Your task to perform on an android device: set the timer Image 0: 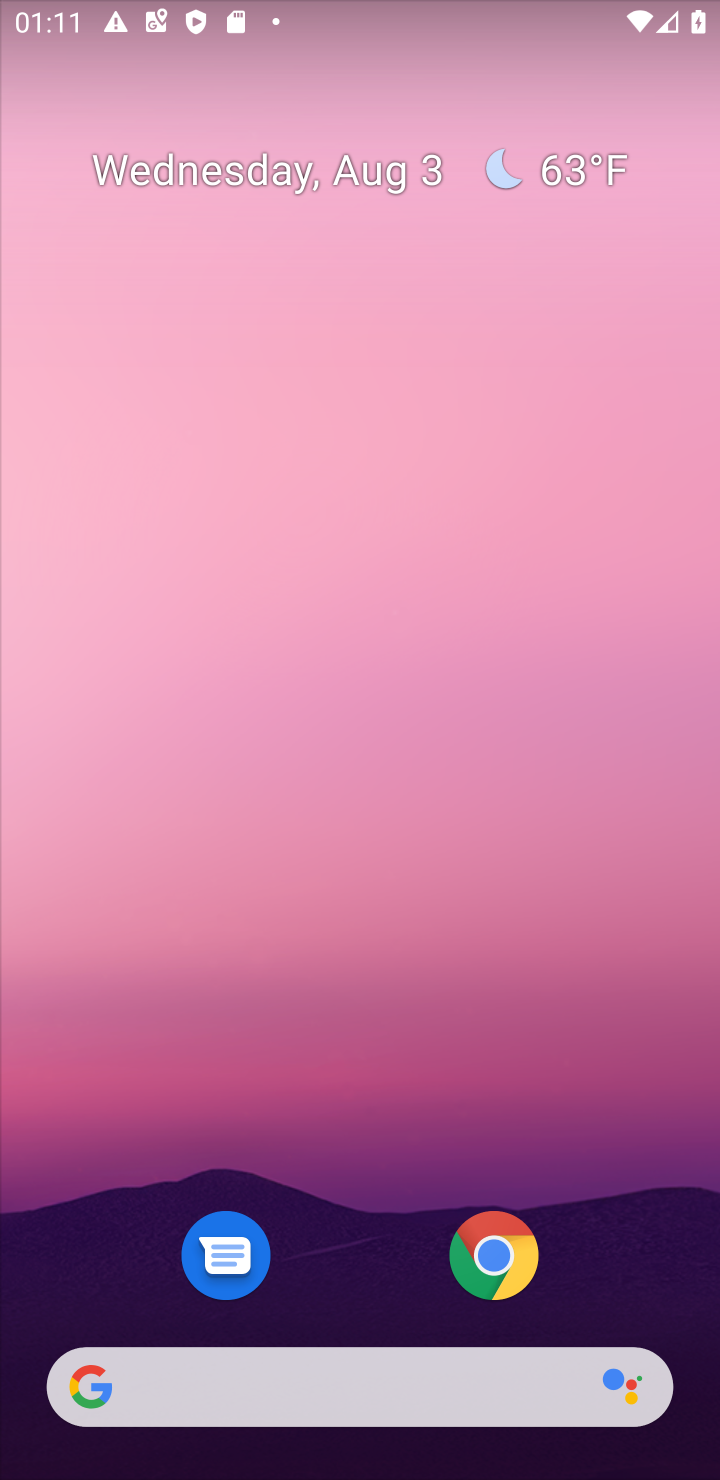
Step 0: drag from (686, 1261) to (360, 128)
Your task to perform on an android device: set the timer Image 1: 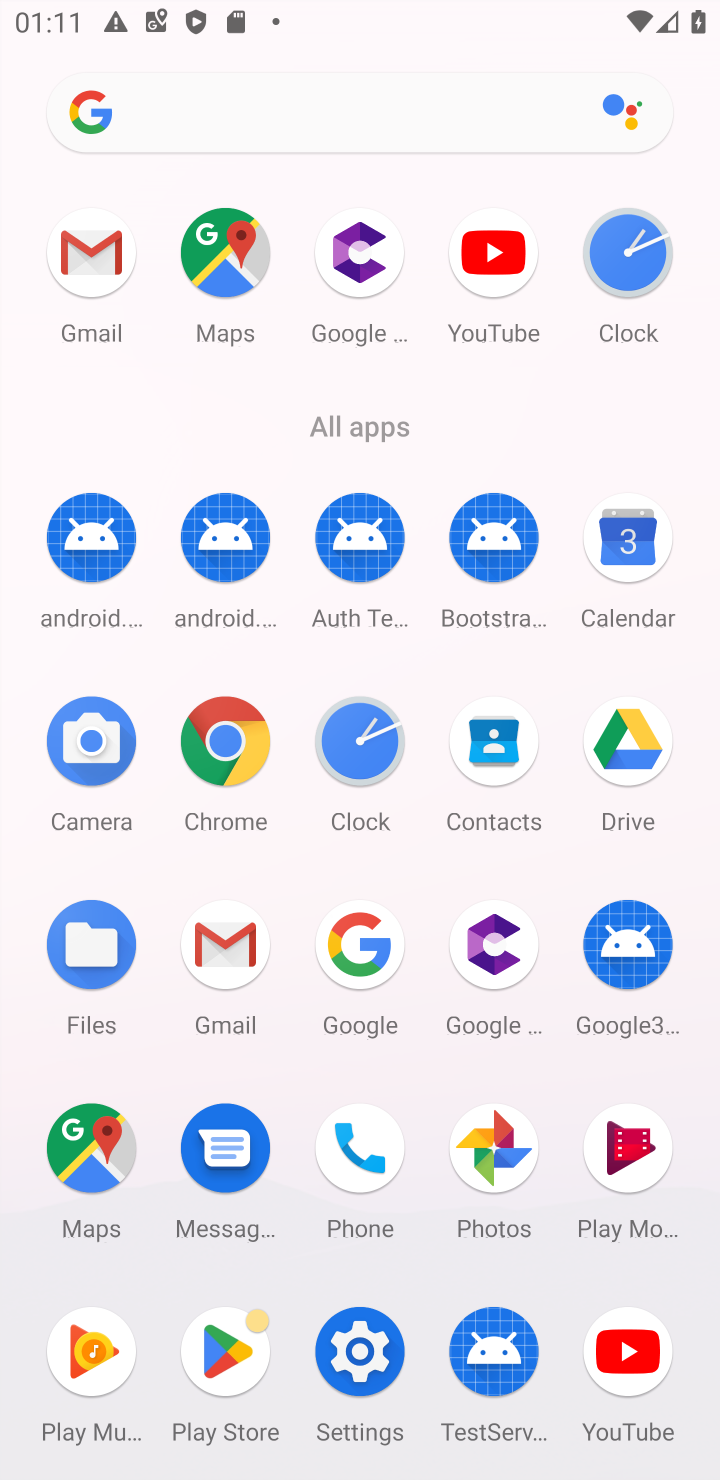
Step 1: click (653, 264)
Your task to perform on an android device: set the timer Image 2: 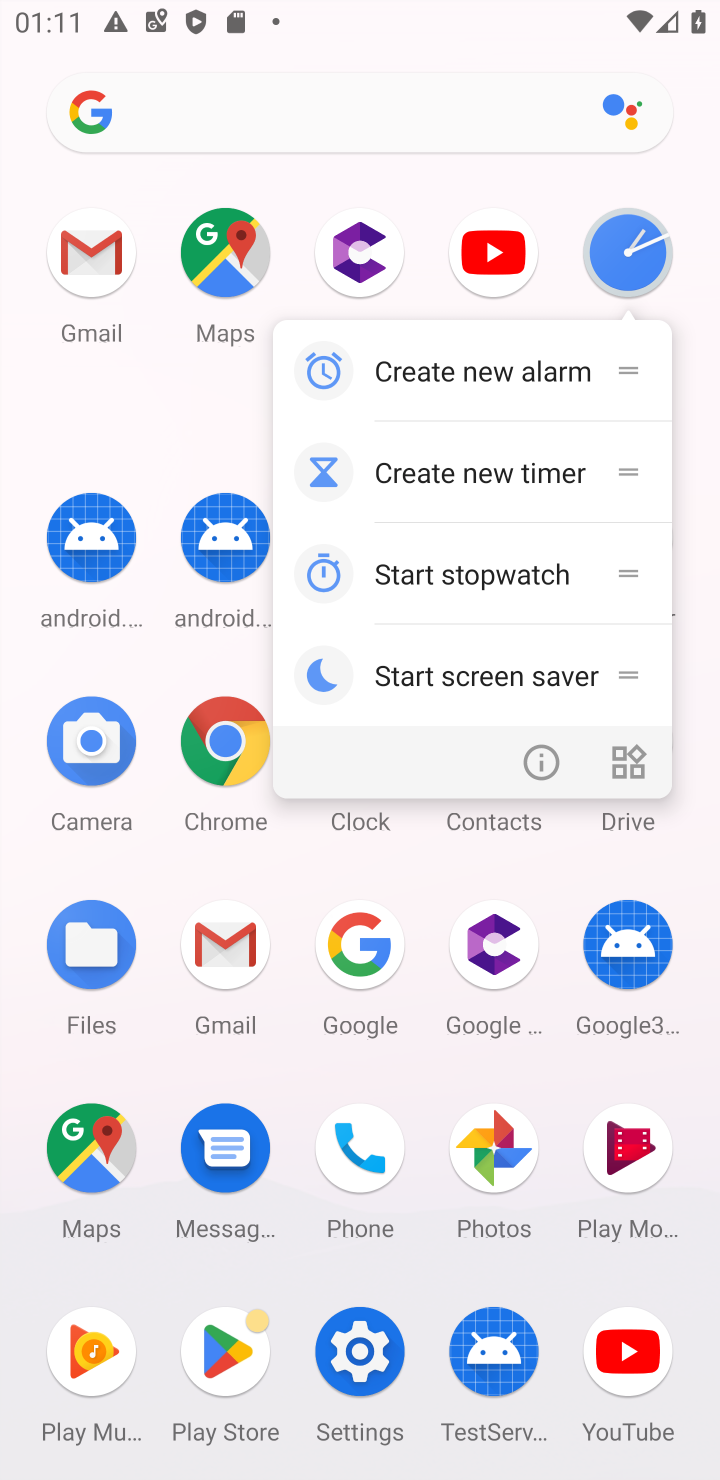
Step 2: click (653, 264)
Your task to perform on an android device: set the timer Image 3: 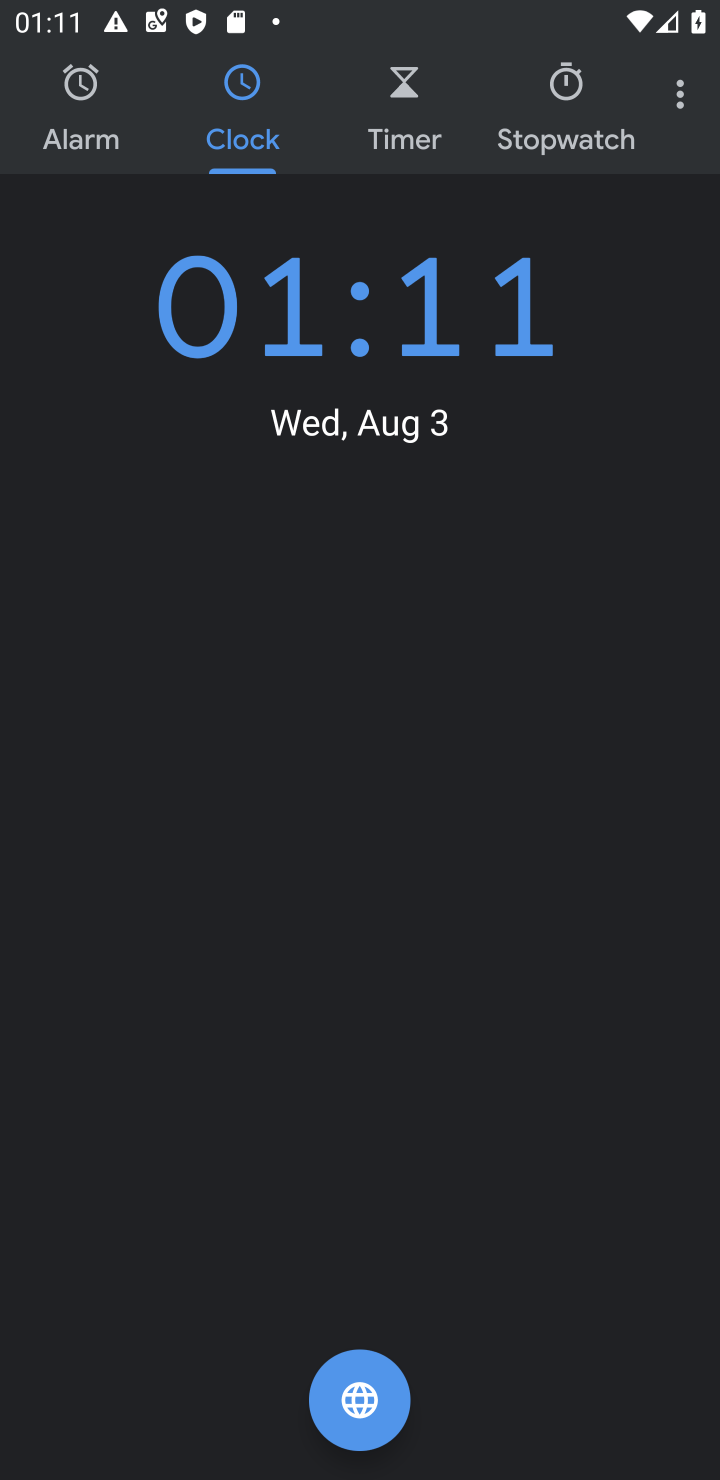
Step 3: click (389, 128)
Your task to perform on an android device: set the timer Image 4: 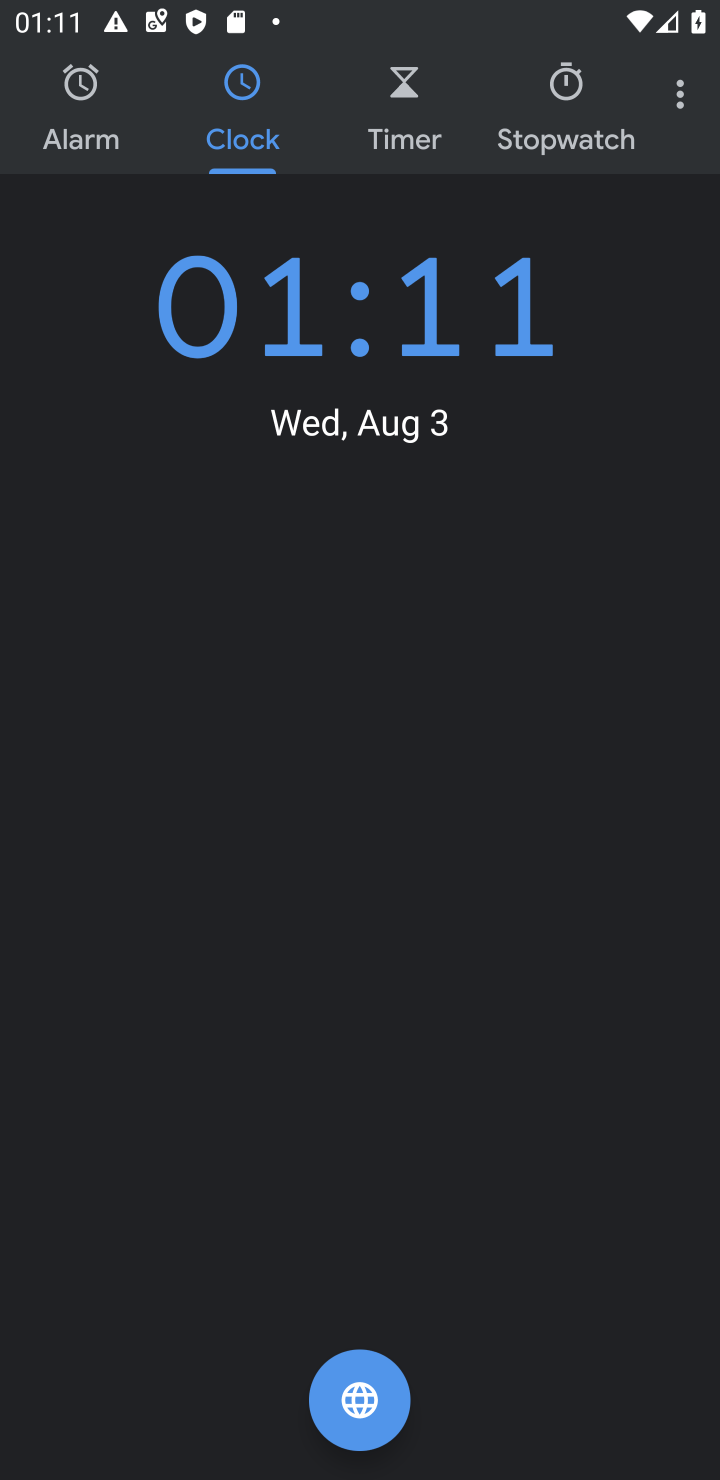
Step 4: click (392, 111)
Your task to perform on an android device: set the timer Image 5: 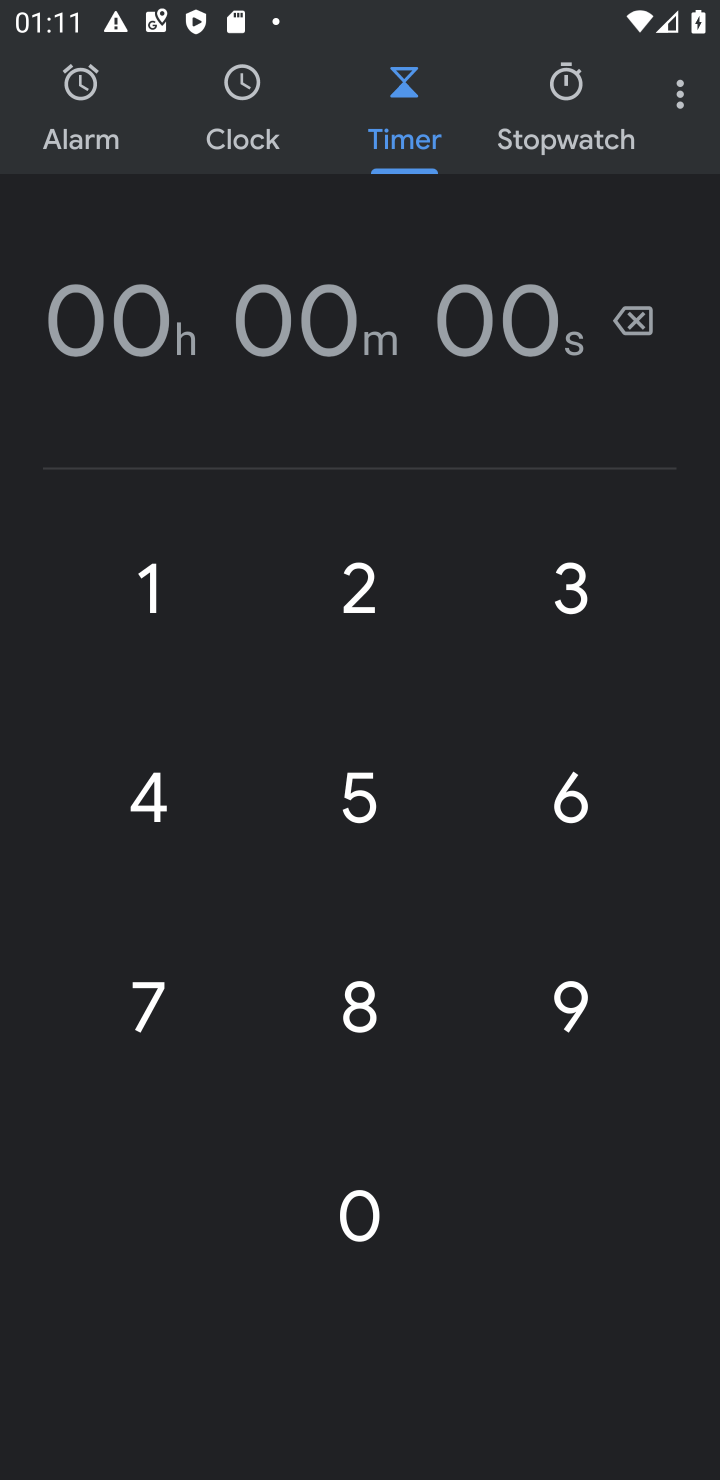
Step 5: click (392, 111)
Your task to perform on an android device: set the timer Image 6: 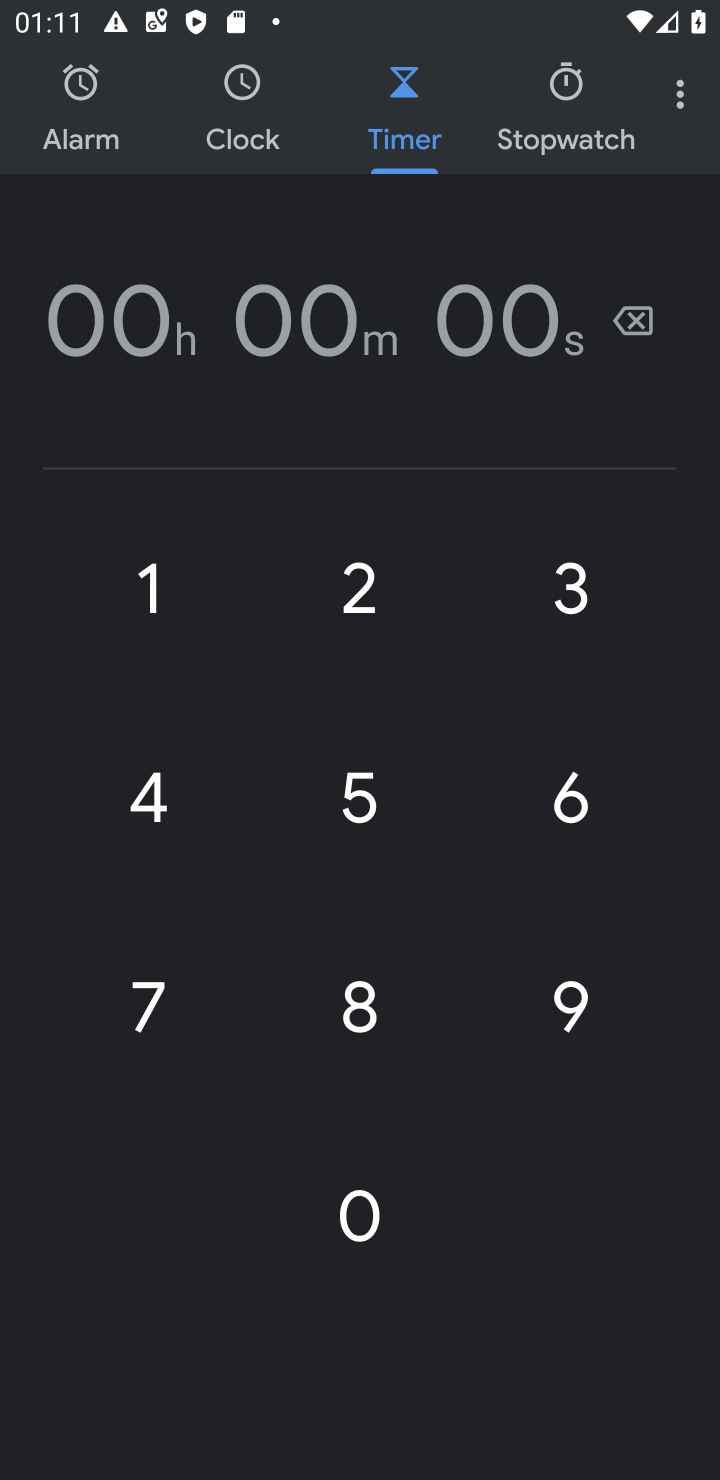
Step 6: type "189182"
Your task to perform on an android device: set the timer Image 7: 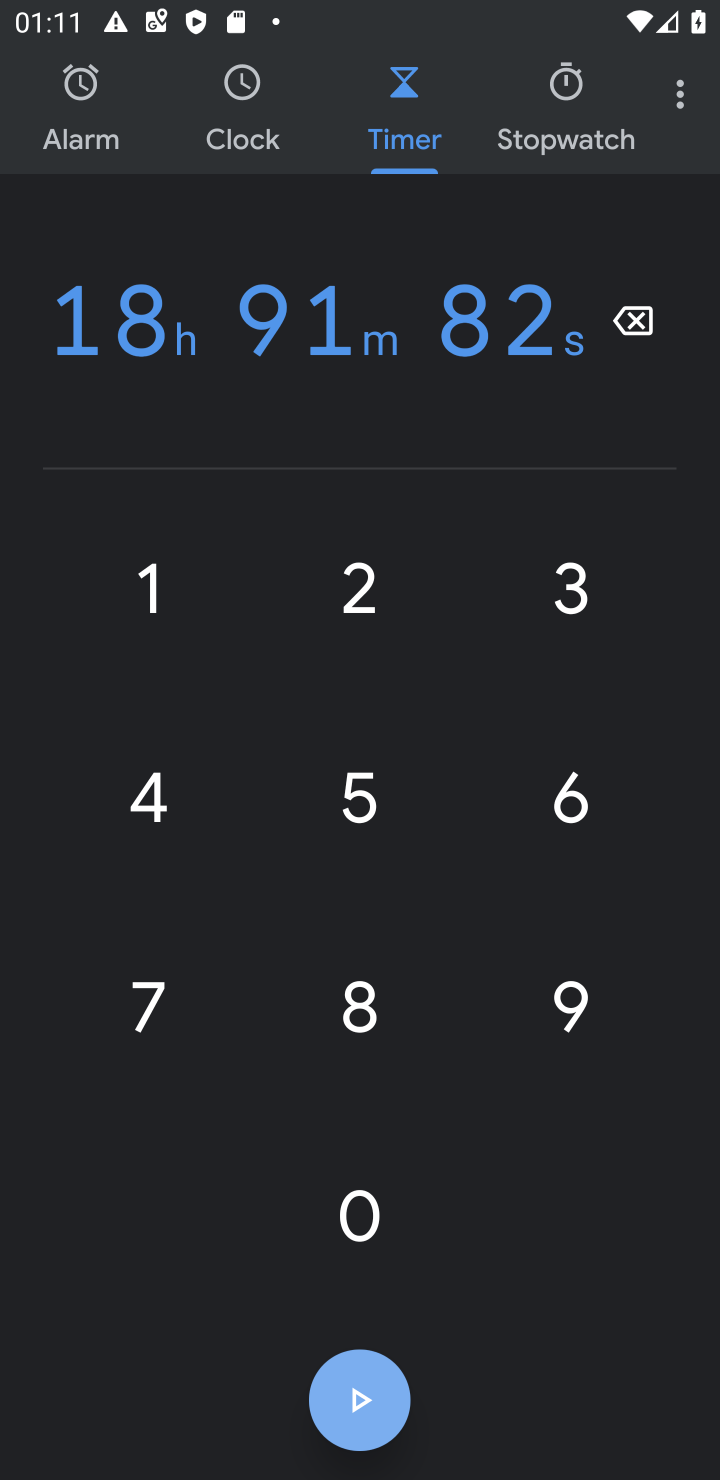
Step 7: click (399, 1398)
Your task to perform on an android device: set the timer Image 8: 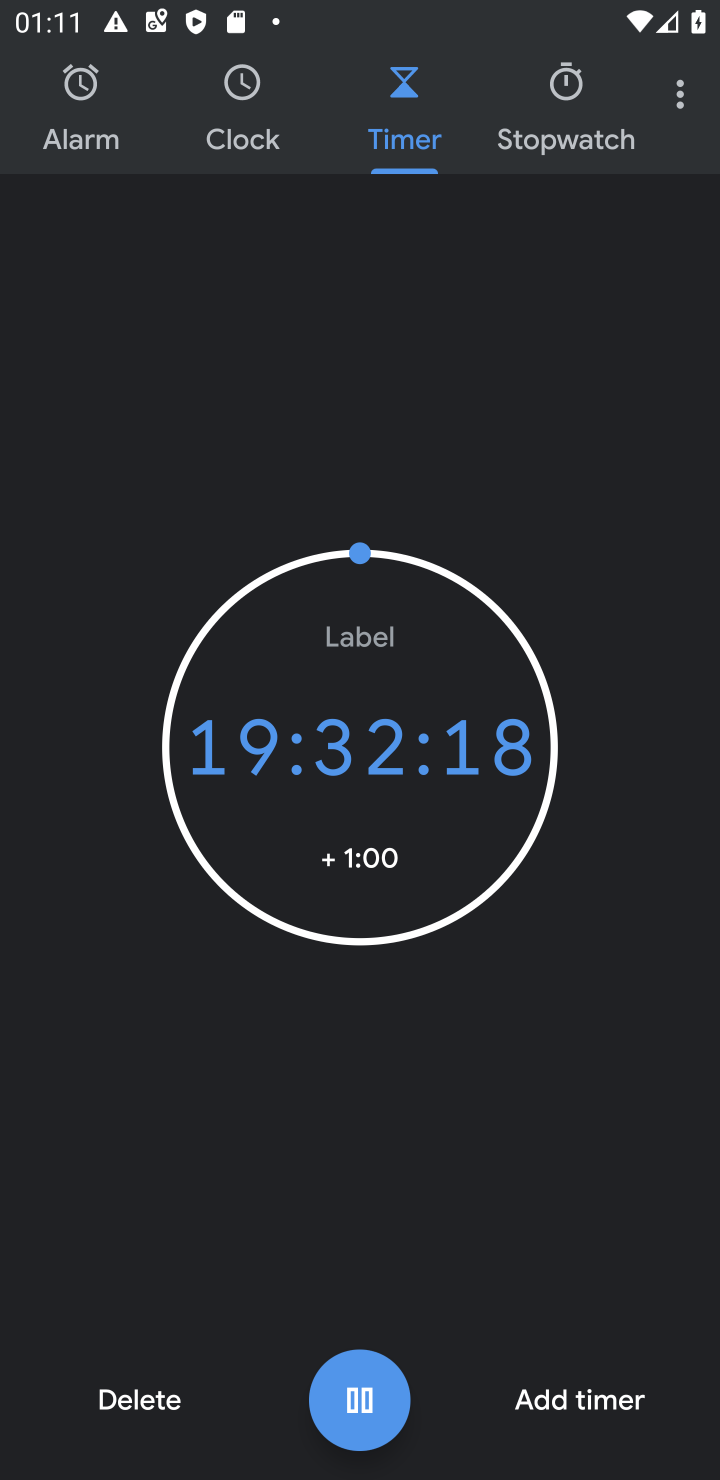
Step 8: task complete